Your task to perform on an android device: Search for Italian restaurants on Maps Image 0: 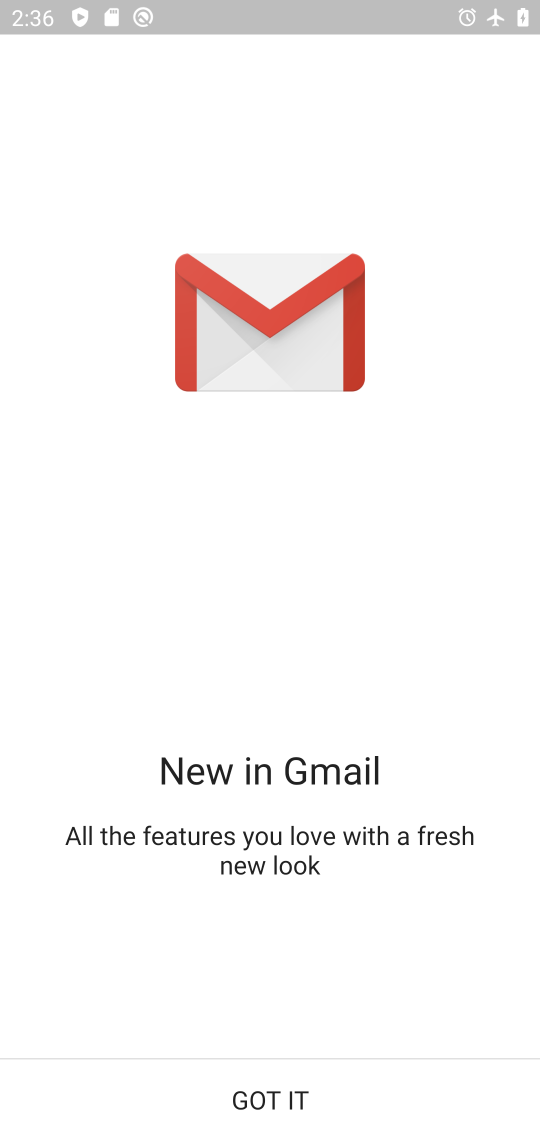
Step 0: press home button
Your task to perform on an android device: Search for Italian restaurants on Maps Image 1: 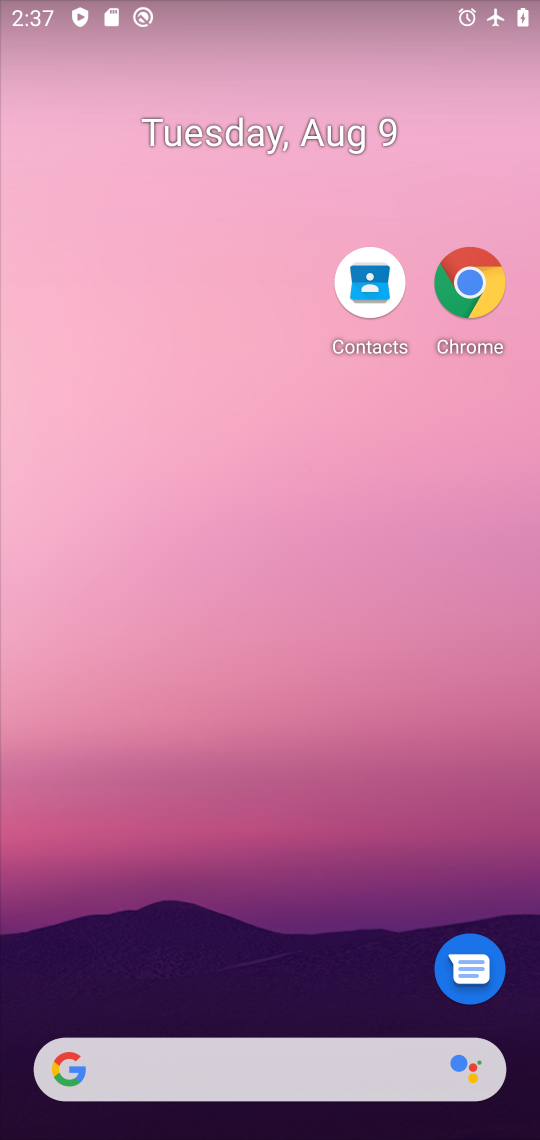
Step 1: drag from (326, 868) to (331, 308)
Your task to perform on an android device: Search for Italian restaurants on Maps Image 2: 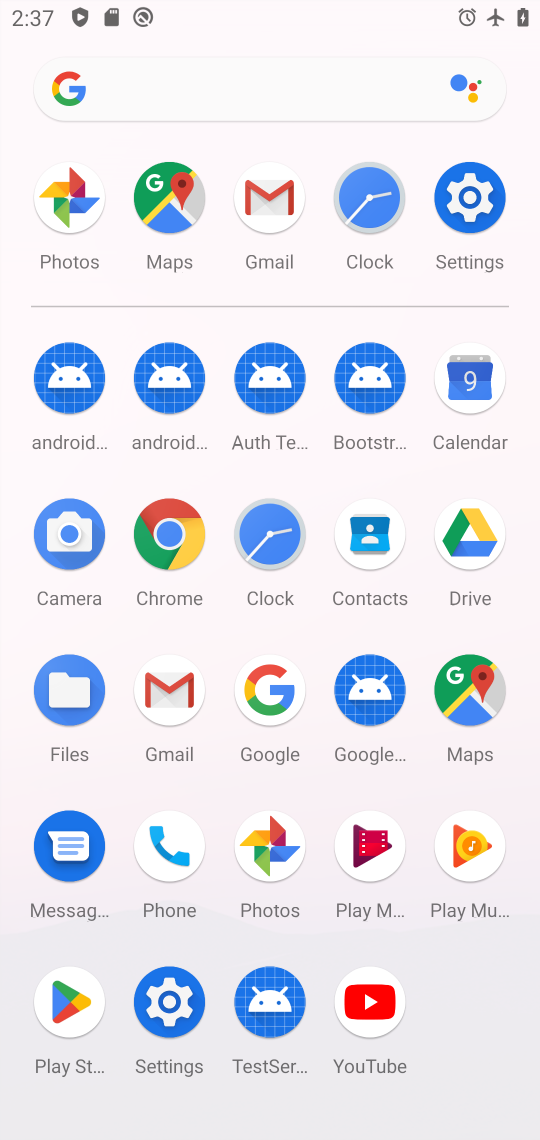
Step 2: click (476, 676)
Your task to perform on an android device: Search for Italian restaurants on Maps Image 3: 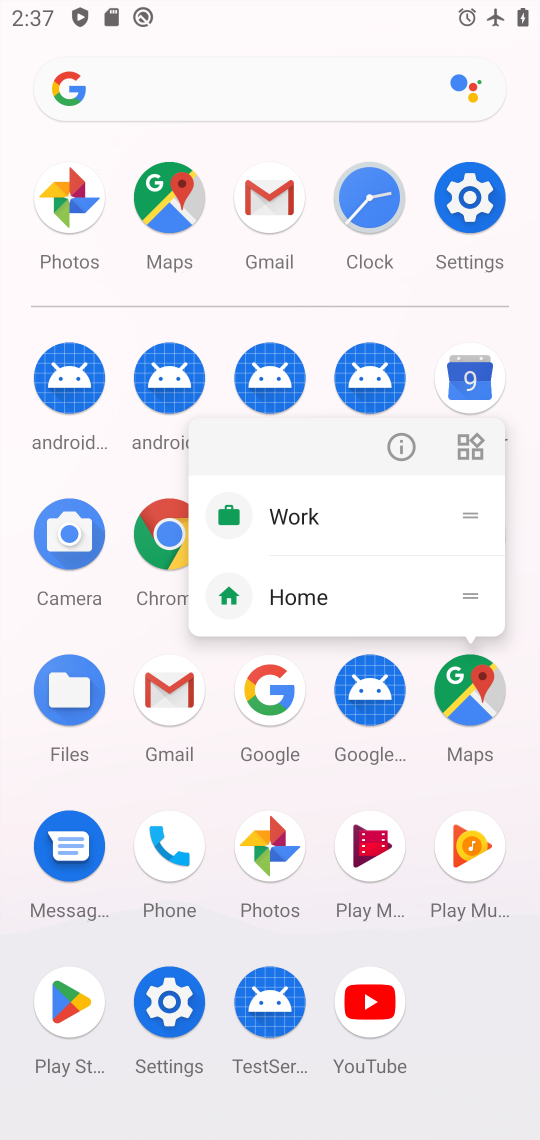
Step 3: click (398, 428)
Your task to perform on an android device: Search for Italian restaurants on Maps Image 4: 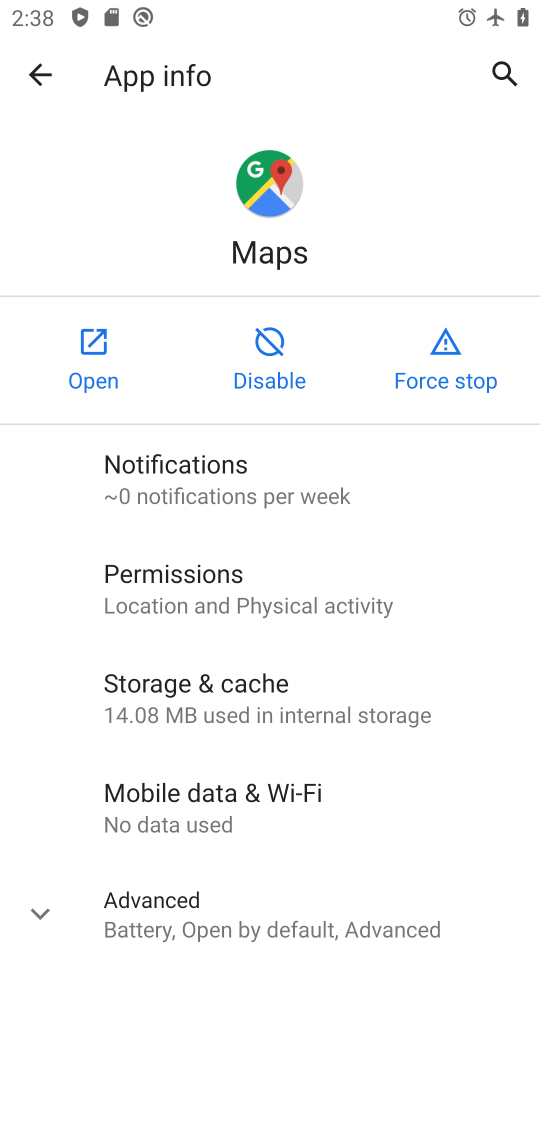
Step 4: click (103, 336)
Your task to perform on an android device: Search for Italian restaurants on Maps Image 5: 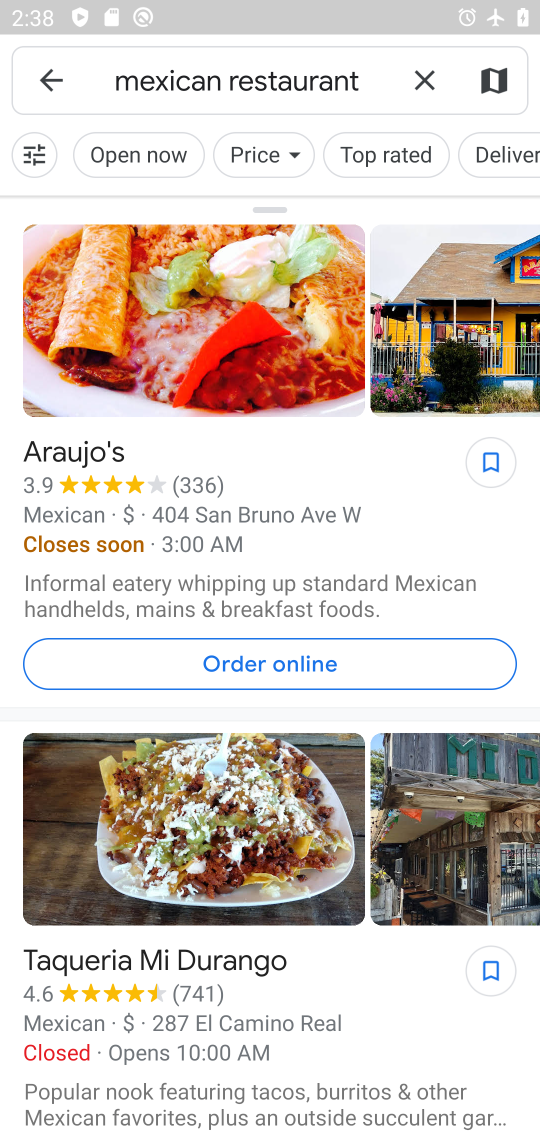
Step 5: drag from (379, 765) to (369, 562)
Your task to perform on an android device: Search for Italian restaurants on Maps Image 6: 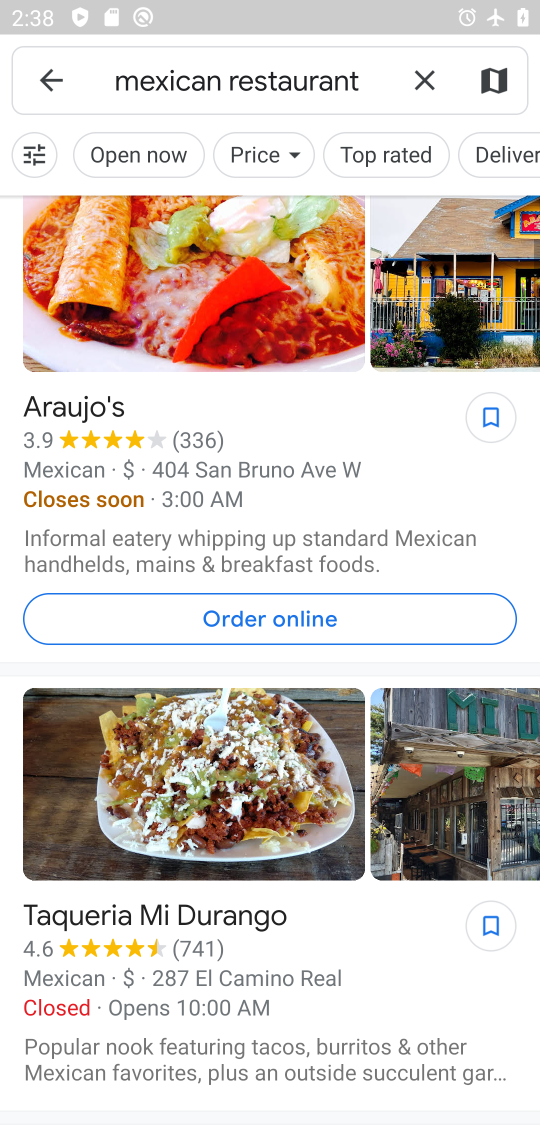
Step 6: click (420, 73)
Your task to perform on an android device: Search for Italian restaurants on Maps Image 7: 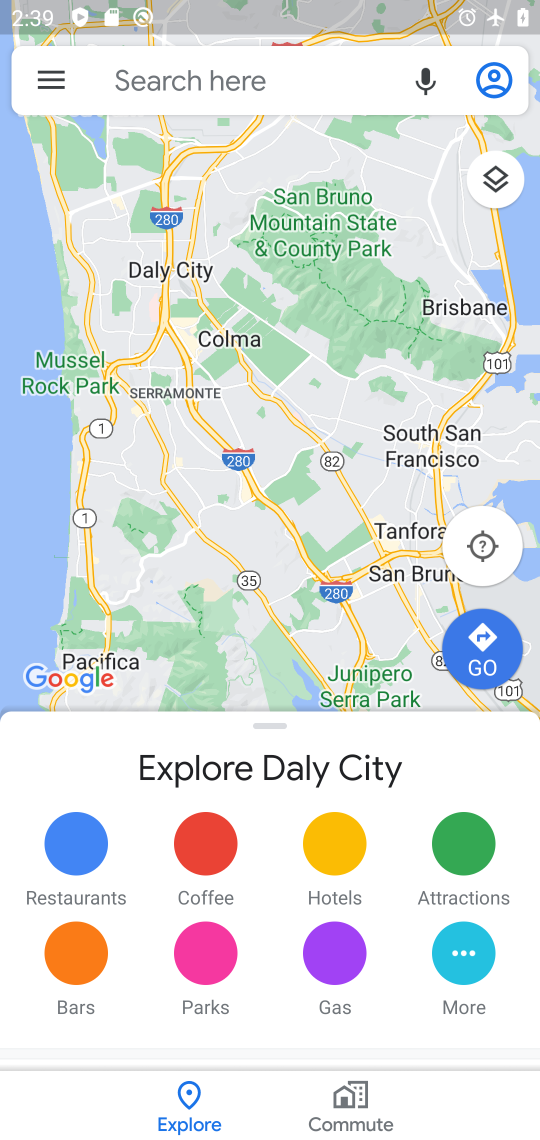
Step 7: click (165, 106)
Your task to perform on an android device: Search for Italian restaurants on Maps Image 8: 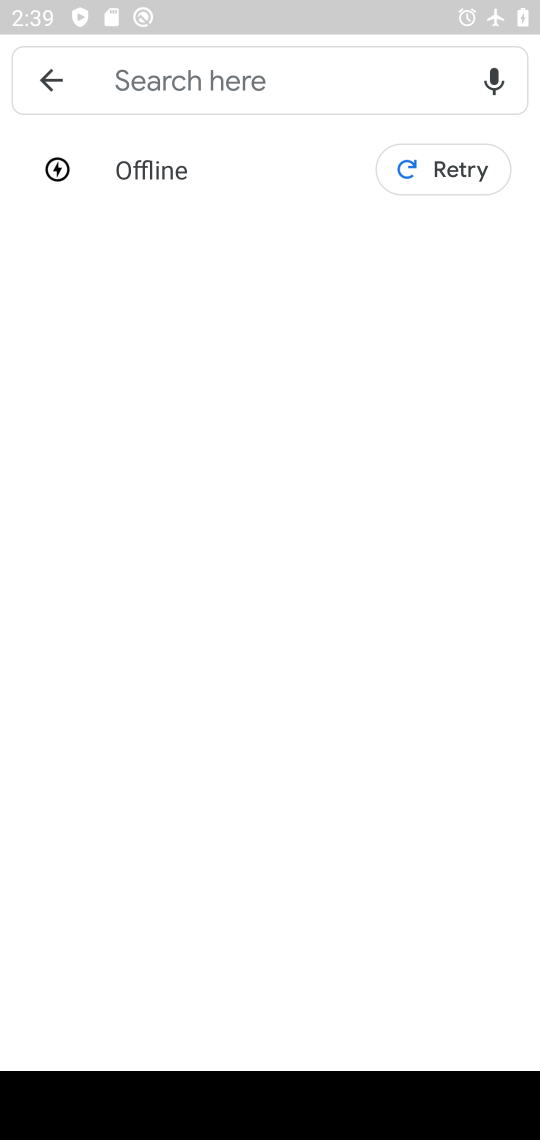
Step 8: type " Italian restaurants "
Your task to perform on an android device: Search for Italian restaurants on Maps Image 9: 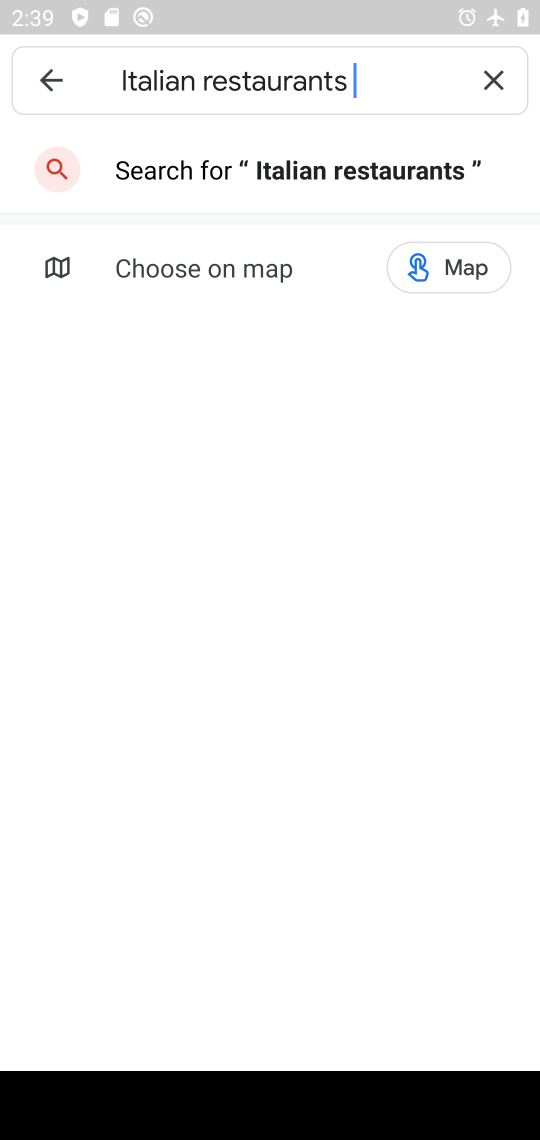
Step 9: type ""
Your task to perform on an android device: Search for Italian restaurants on Maps Image 10: 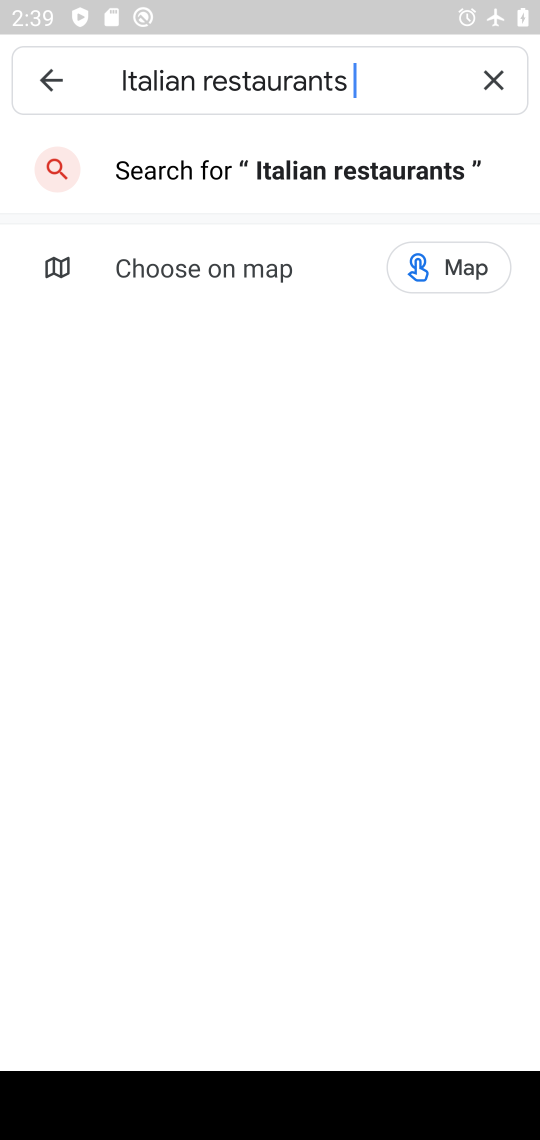
Step 10: click (268, 186)
Your task to perform on an android device: Search for Italian restaurants on Maps Image 11: 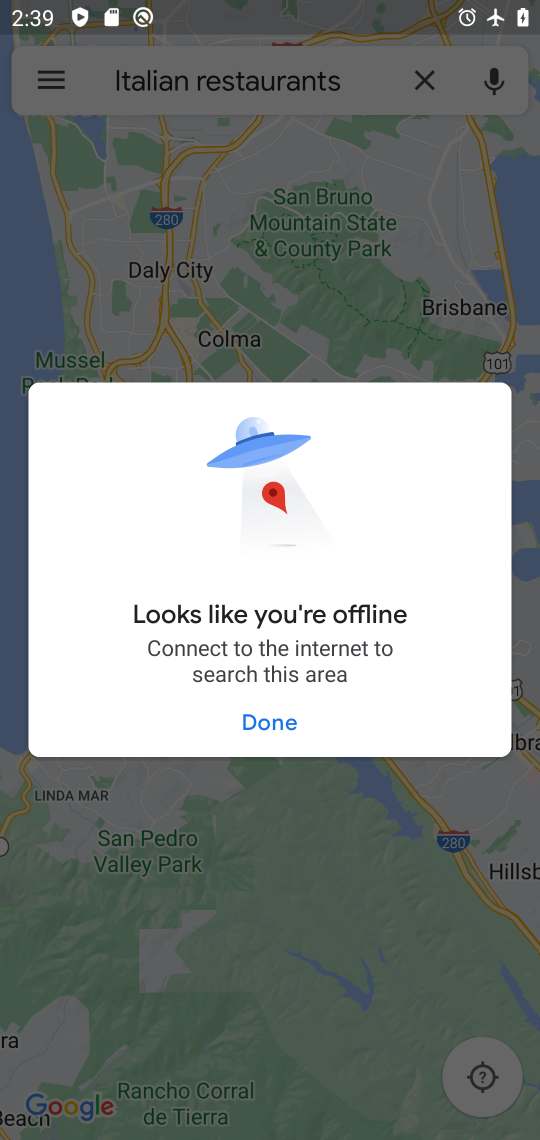
Step 11: task complete